Your task to perform on an android device: What's the weather going to be tomorrow? Image 0: 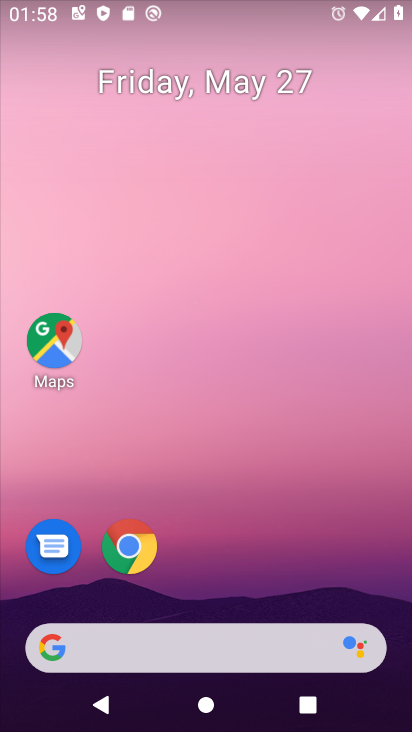
Step 0: drag from (297, 645) to (280, 307)
Your task to perform on an android device: What's the weather going to be tomorrow? Image 1: 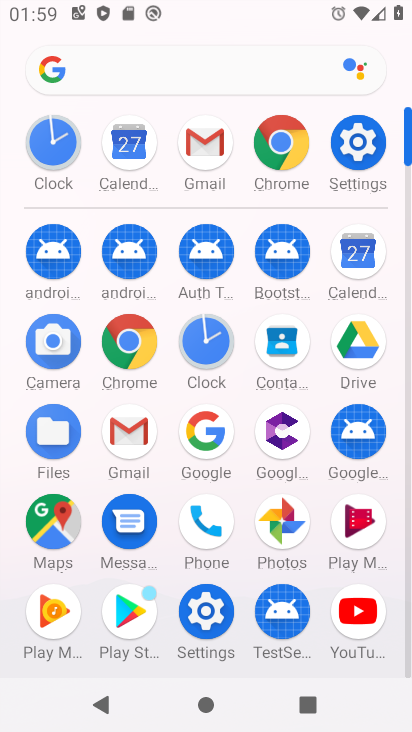
Step 1: click (155, 73)
Your task to perform on an android device: What's the weather going to be tomorrow? Image 2: 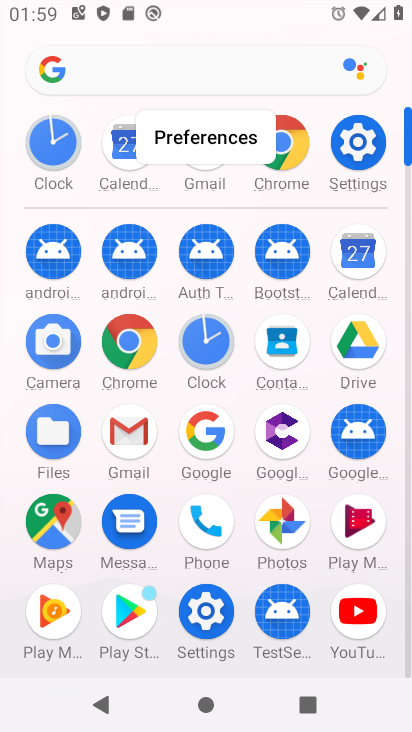
Step 2: click (126, 71)
Your task to perform on an android device: What's the weather going to be tomorrow? Image 3: 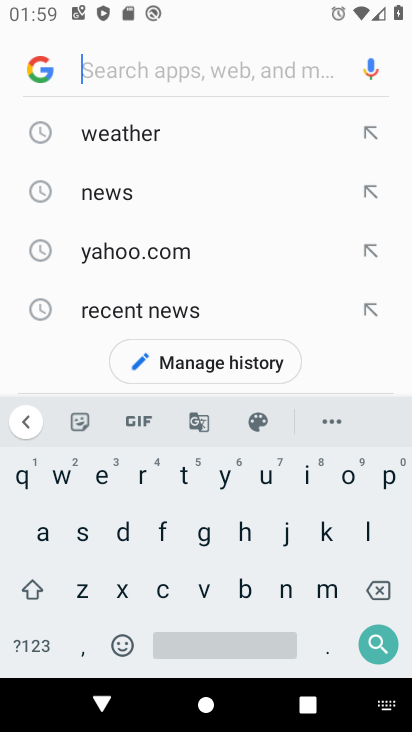
Step 3: click (141, 142)
Your task to perform on an android device: What's the weather going to be tomorrow? Image 4: 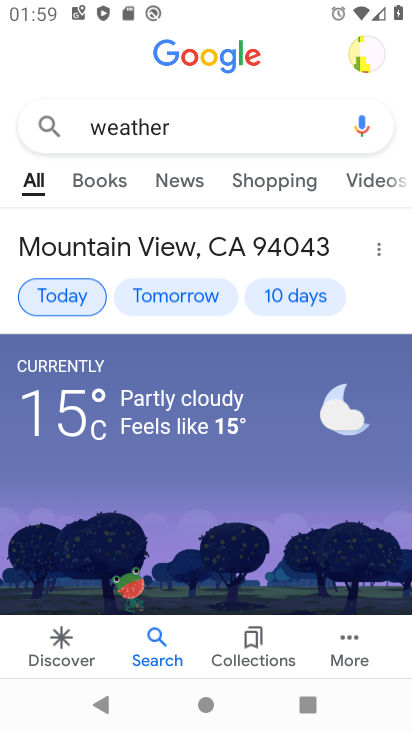
Step 4: click (136, 283)
Your task to perform on an android device: What's the weather going to be tomorrow? Image 5: 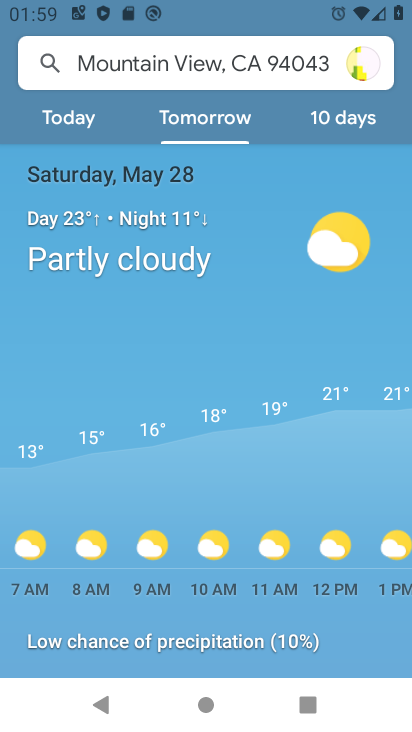
Step 5: task complete